Your task to perform on an android device: open app "Gmail" (install if not already installed) and enter user name: "undecidable@inbox.com" and password: "discouraging" Image 0: 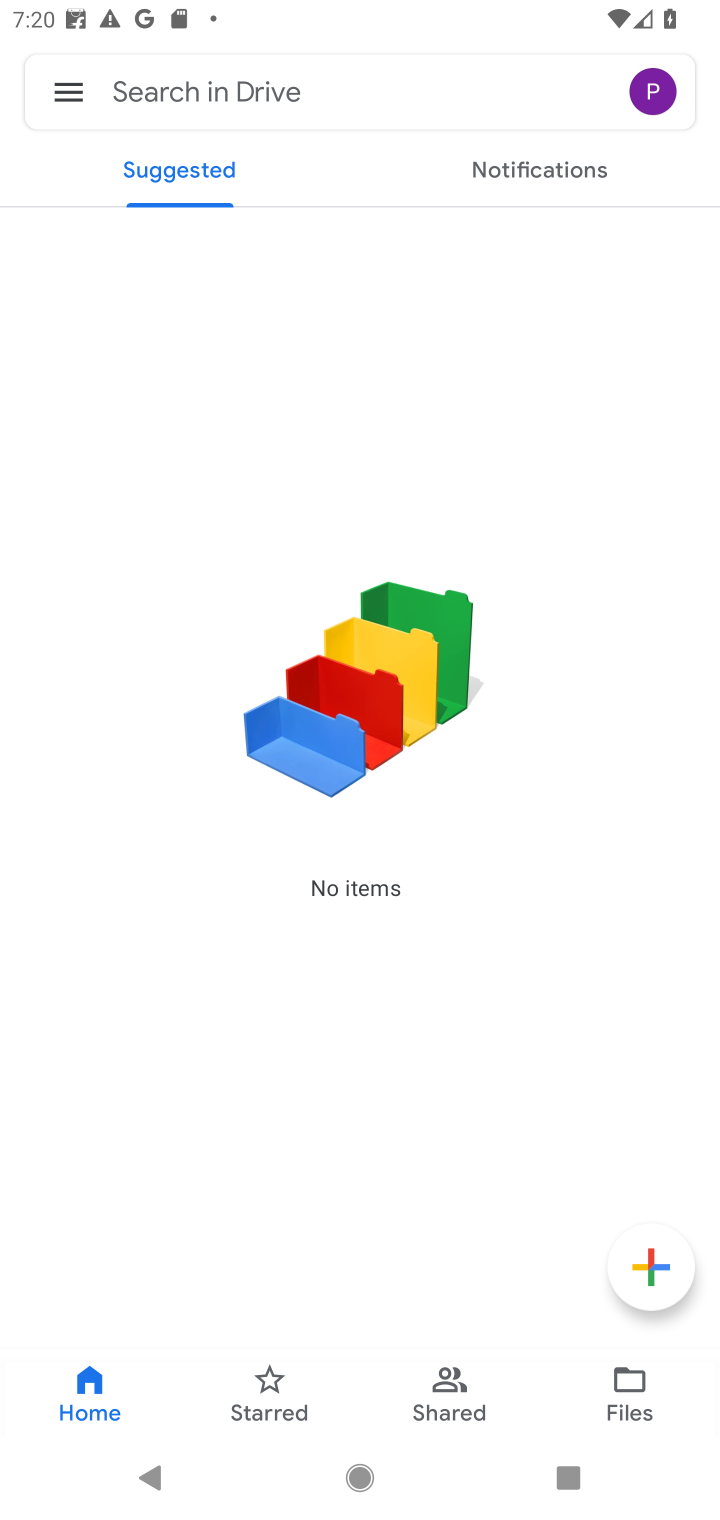
Step 0: press home button
Your task to perform on an android device: open app "Gmail" (install if not already installed) and enter user name: "undecidable@inbox.com" and password: "discouraging" Image 1: 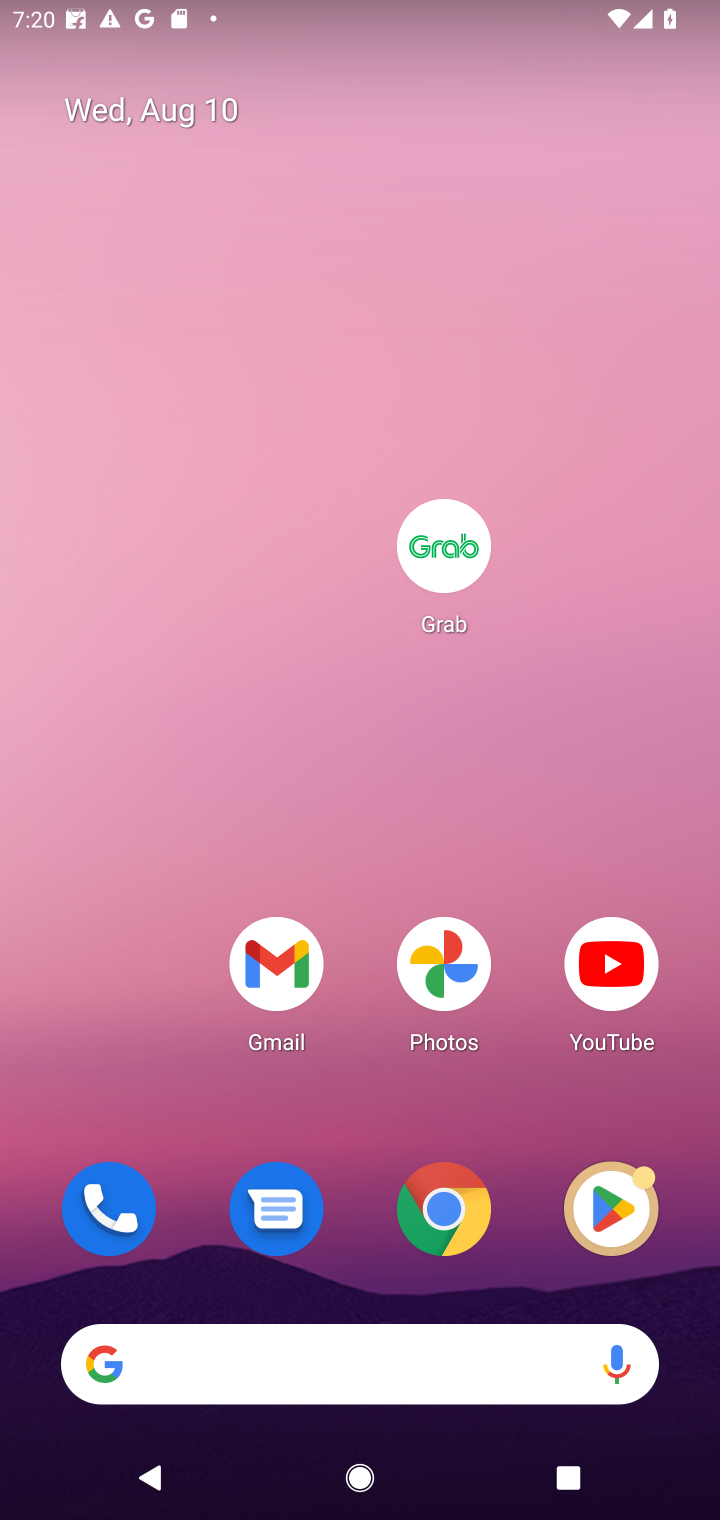
Step 1: click (258, 987)
Your task to perform on an android device: open app "Gmail" (install if not already installed) and enter user name: "undecidable@inbox.com" and password: "discouraging" Image 2: 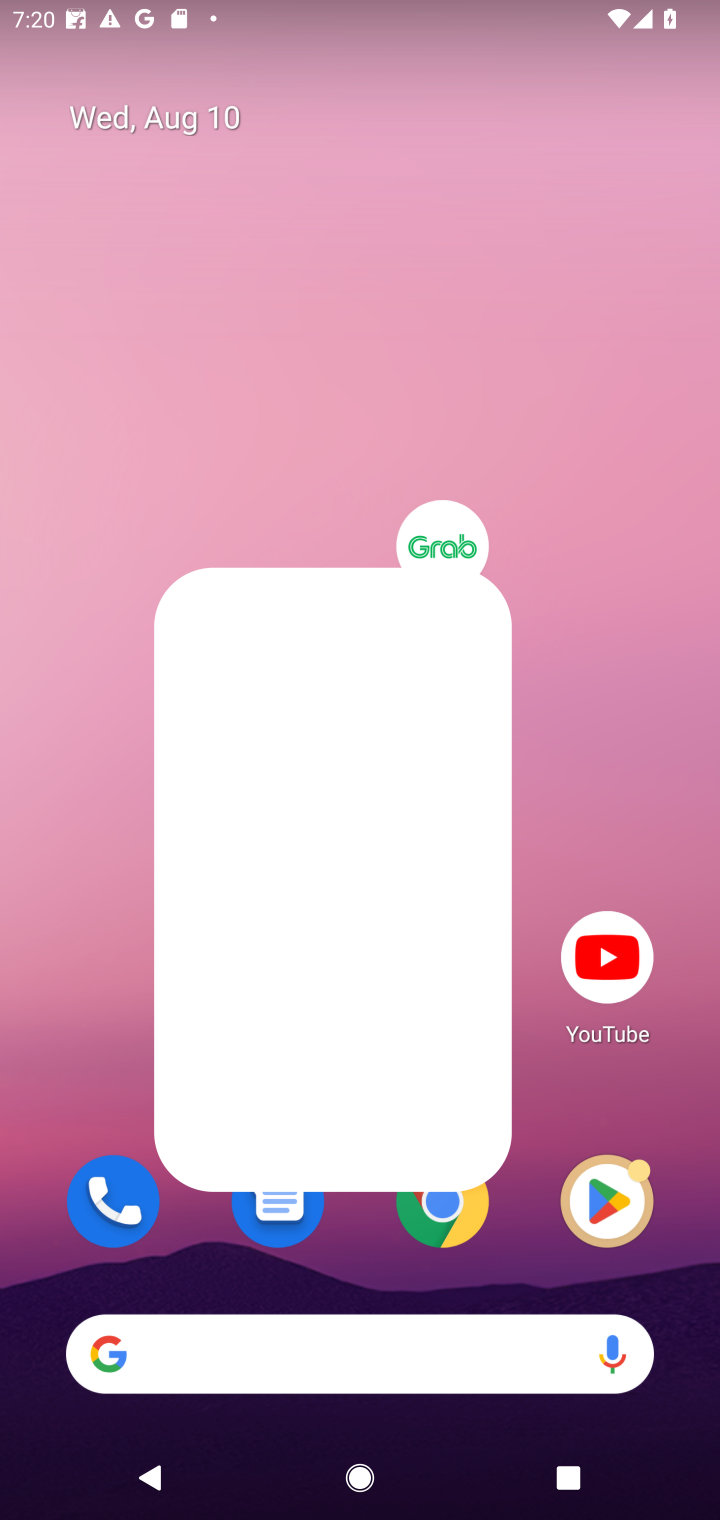
Step 2: task complete